Your task to perform on an android device: change the clock style Image 0: 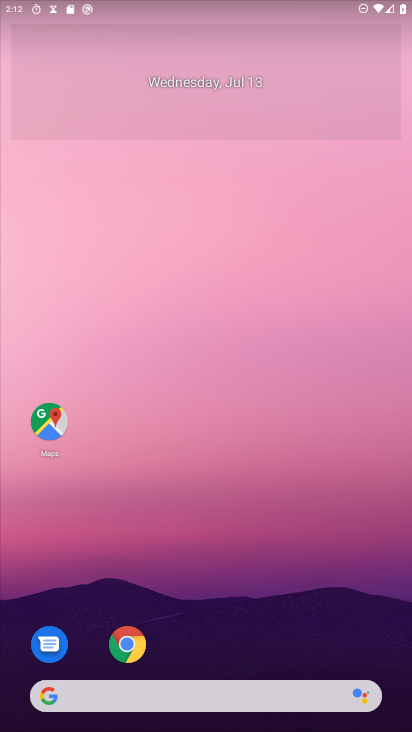
Step 0: press home button
Your task to perform on an android device: change the clock style Image 1: 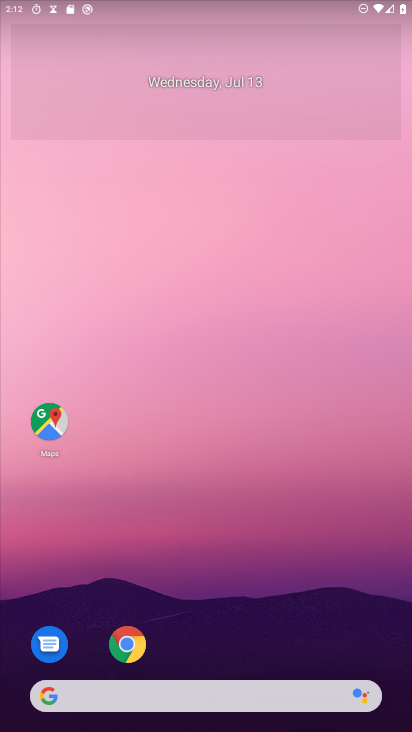
Step 1: drag from (228, 602) to (235, 38)
Your task to perform on an android device: change the clock style Image 2: 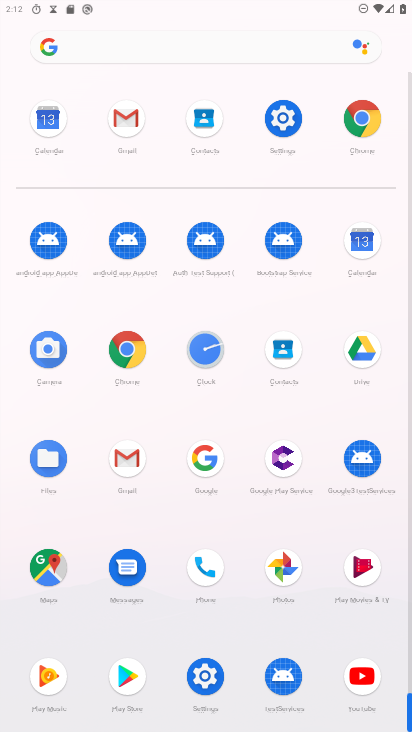
Step 2: click (208, 351)
Your task to perform on an android device: change the clock style Image 3: 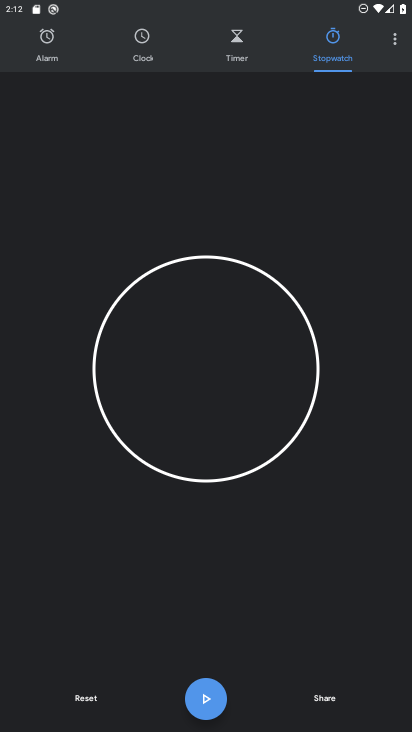
Step 3: click (392, 34)
Your task to perform on an android device: change the clock style Image 4: 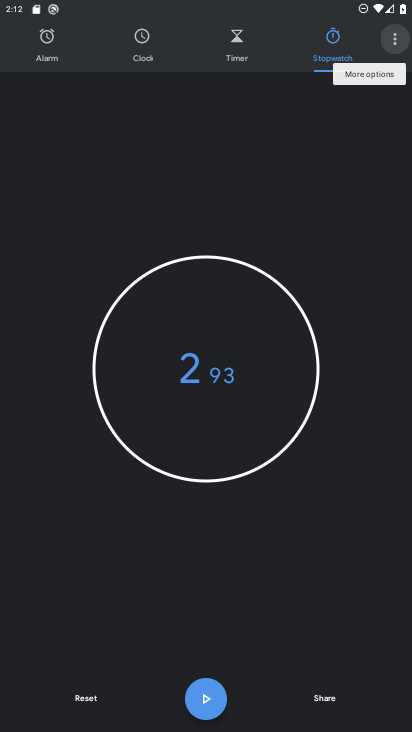
Step 4: click (392, 36)
Your task to perform on an android device: change the clock style Image 5: 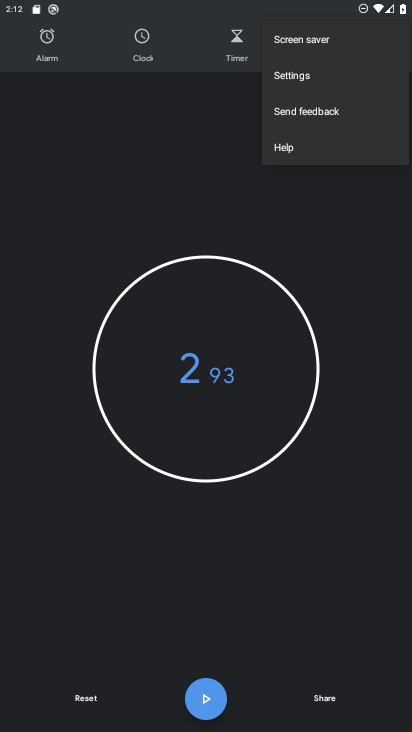
Step 5: click (286, 72)
Your task to perform on an android device: change the clock style Image 6: 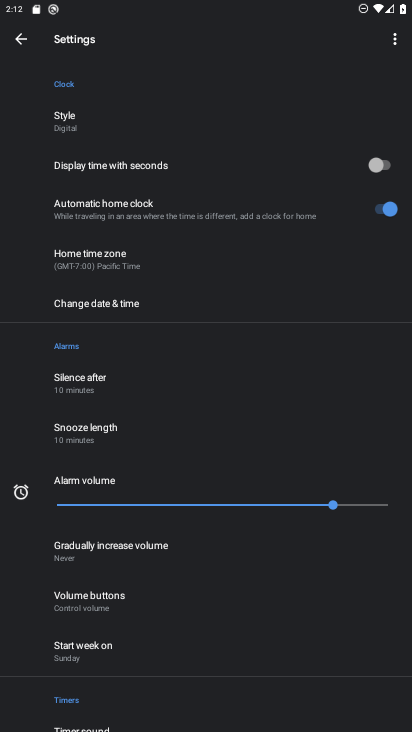
Step 6: click (63, 116)
Your task to perform on an android device: change the clock style Image 7: 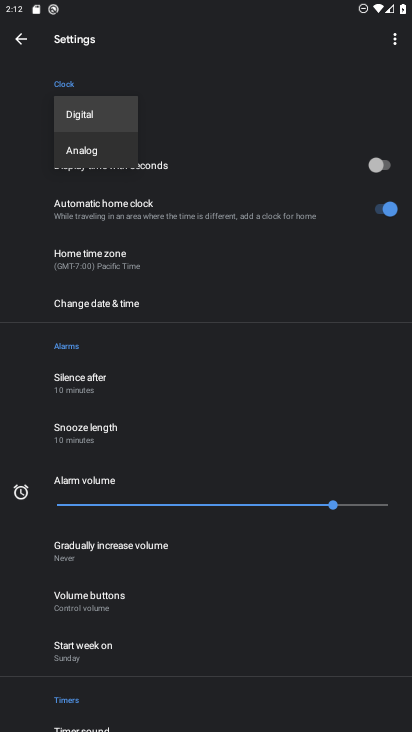
Step 7: click (89, 151)
Your task to perform on an android device: change the clock style Image 8: 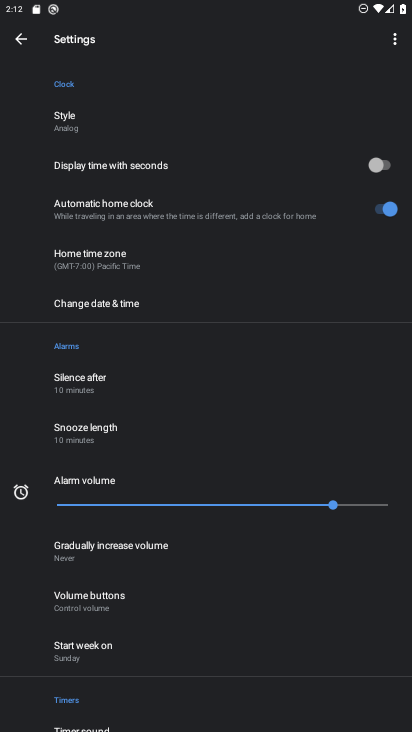
Step 8: task complete